Your task to perform on an android device: Open a new Chrome window Image 0: 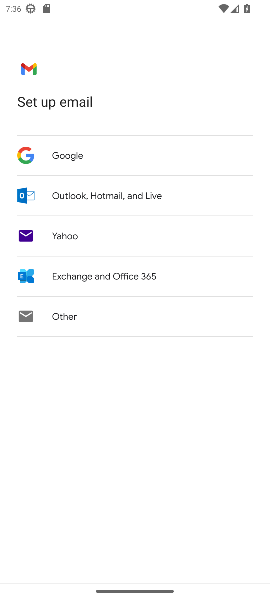
Step 0: press home button
Your task to perform on an android device: Open a new Chrome window Image 1: 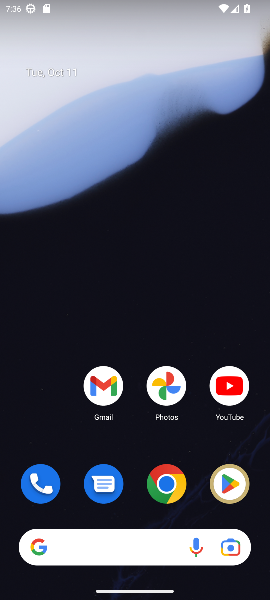
Step 1: click (168, 485)
Your task to perform on an android device: Open a new Chrome window Image 2: 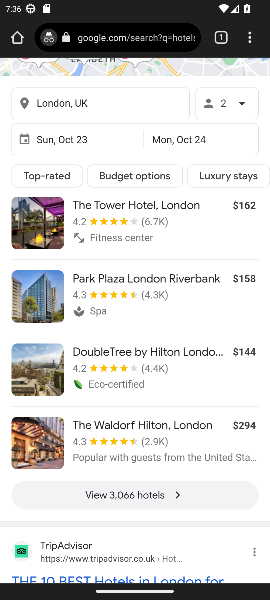
Step 2: task complete